Your task to perform on an android device: open device folders in google photos Image 0: 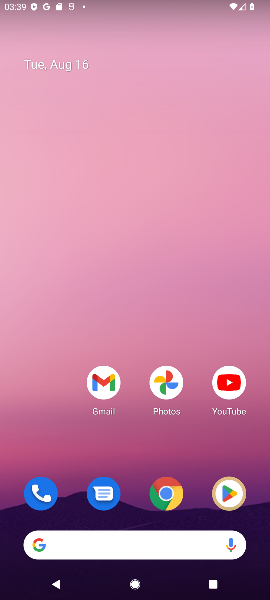
Step 0: drag from (61, 451) to (75, 126)
Your task to perform on an android device: open device folders in google photos Image 1: 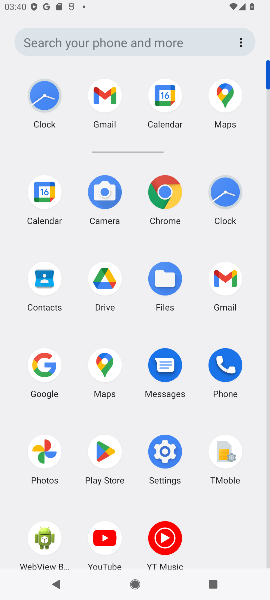
Step 1: click (43, 458)
Your task to perform on an android device: open device folders in google photos Image 2: 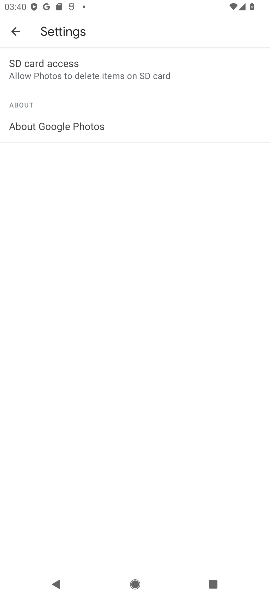
Step 2: press back button
Your task to perform on an android device: open device folders in google photos Image 3: 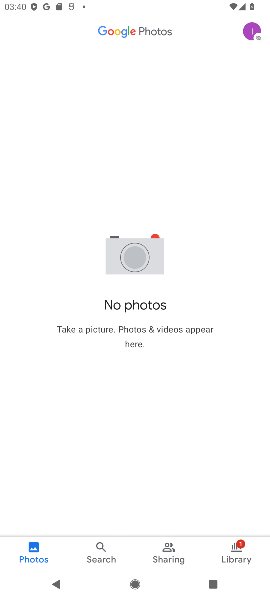
Step 3: click (250, 31)
Your task to perform on an android device: open device folders in google photos Image 4: 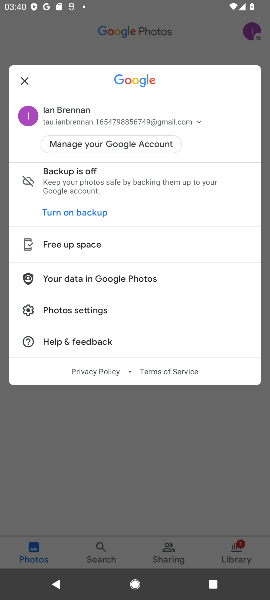
Step 4: task complete